Your task to perform on an android device: Search for hotels in Las Vegas Image 0: 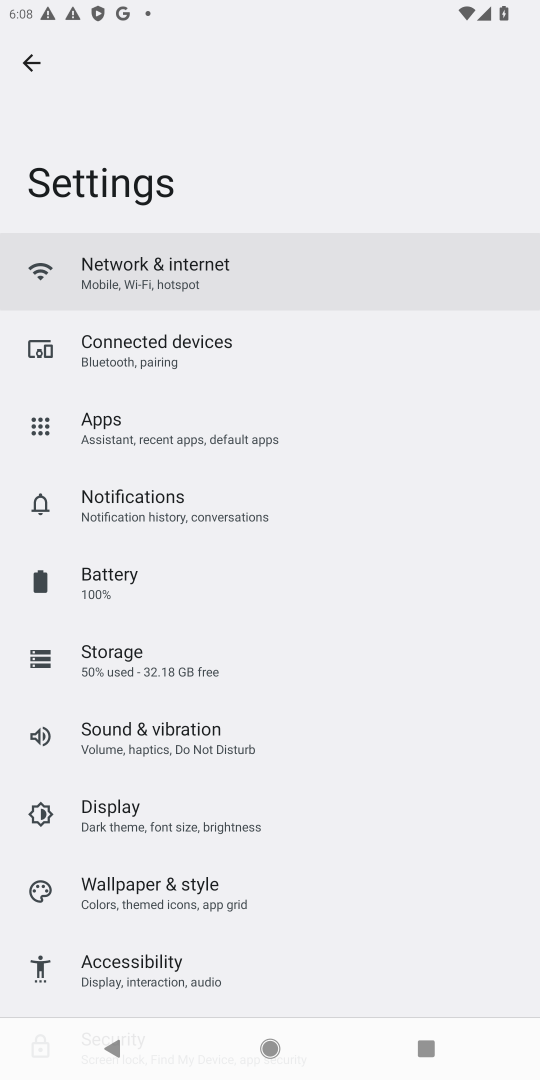
Step 0: press home button
Your task to perform on an android device: Search for hotels in Las Vegas Image 1: 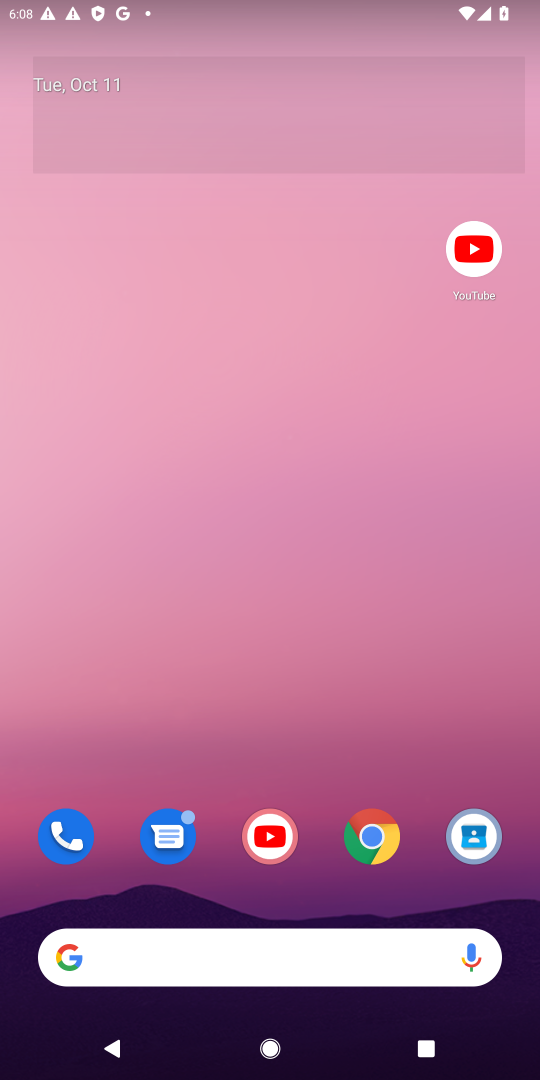
Step 1: click (361, 838)
Your task to perform on an android device: Search for hotels in Las Vegas Image 2: 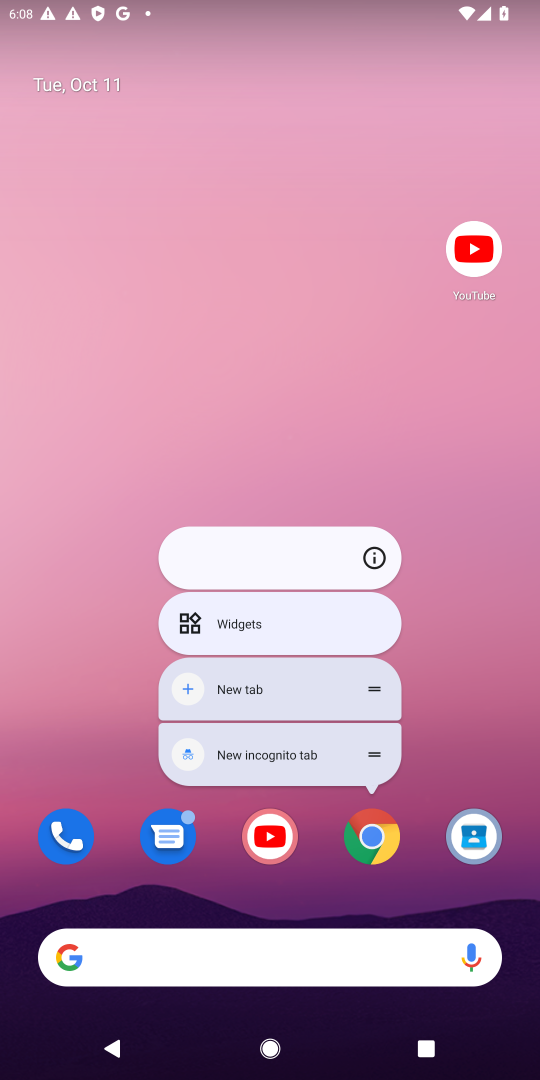
Step 2: click (375, 834)
Your task to perform on an android device: Search for hotels in Las Vegas Image 3: 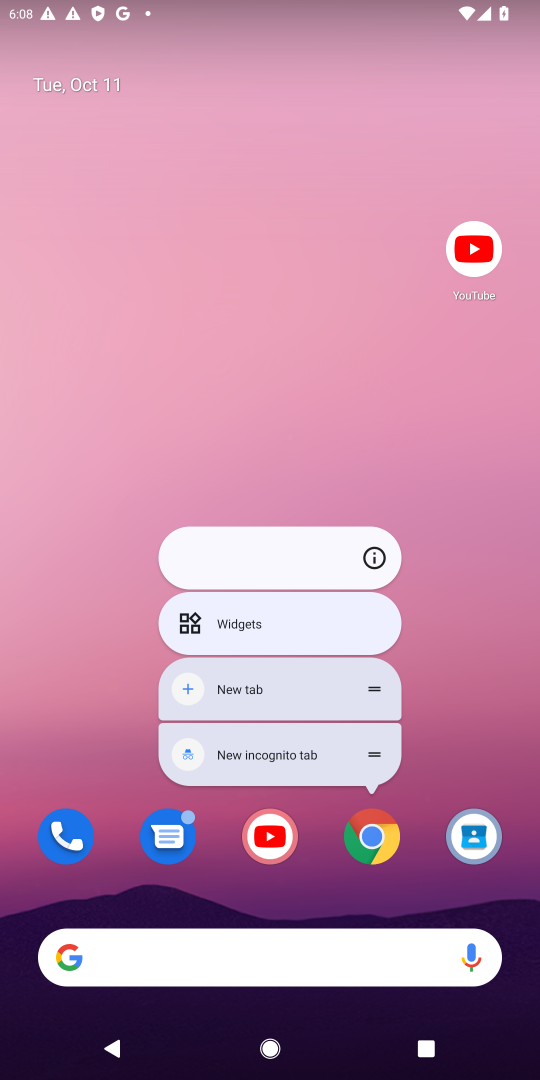
Step 3: click (375, 834)
Your task to perform on an android device: Search for hotels in Las Vegas Image 4: 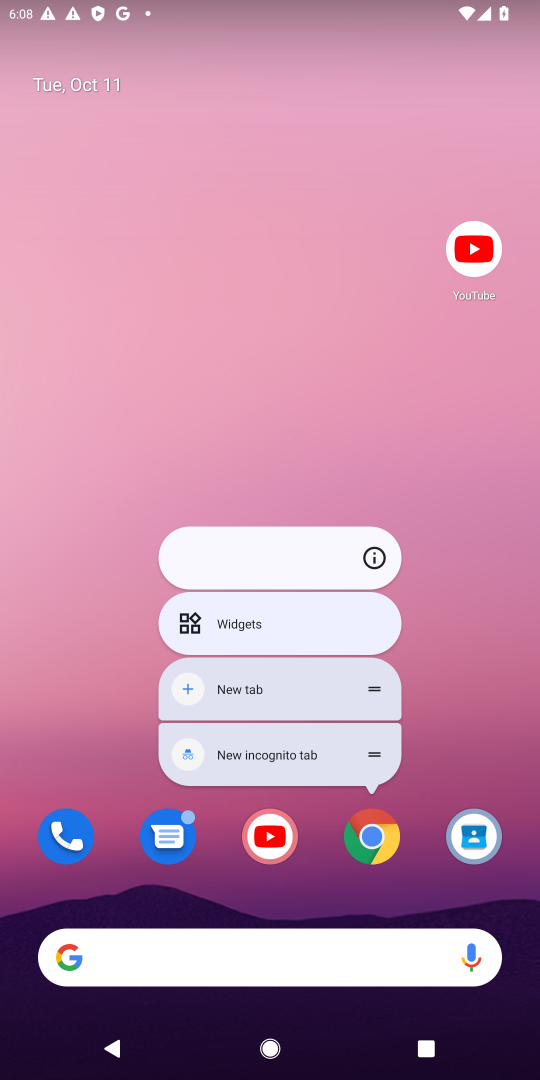
Step 4: click (372, 846)
Your task to perform on an android device: Search for hotels in Las Vegas Image 5: 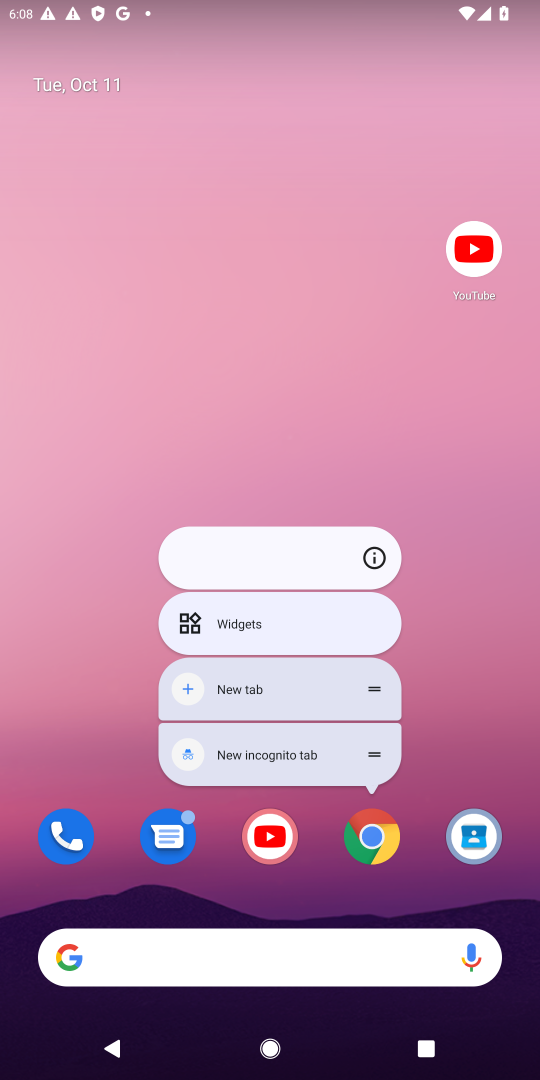
Step 5: click (372, 840)
Your task to perform on an android device: Search for hotels in Las Vegas Image 6: 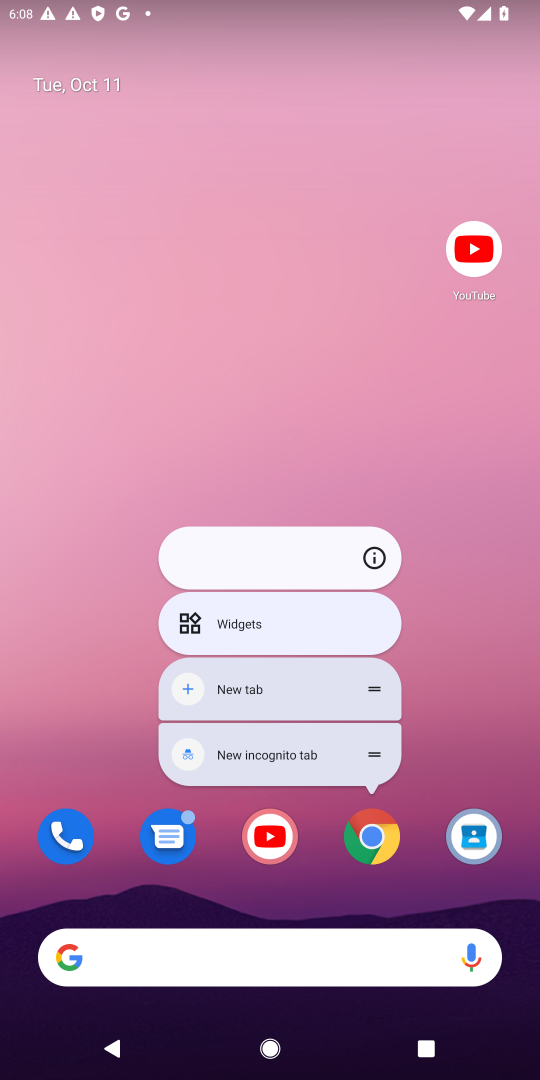
Step 6: click (369, 841)
Your task to perform on an android device: Search for hotels in Las Vegas Image 7: 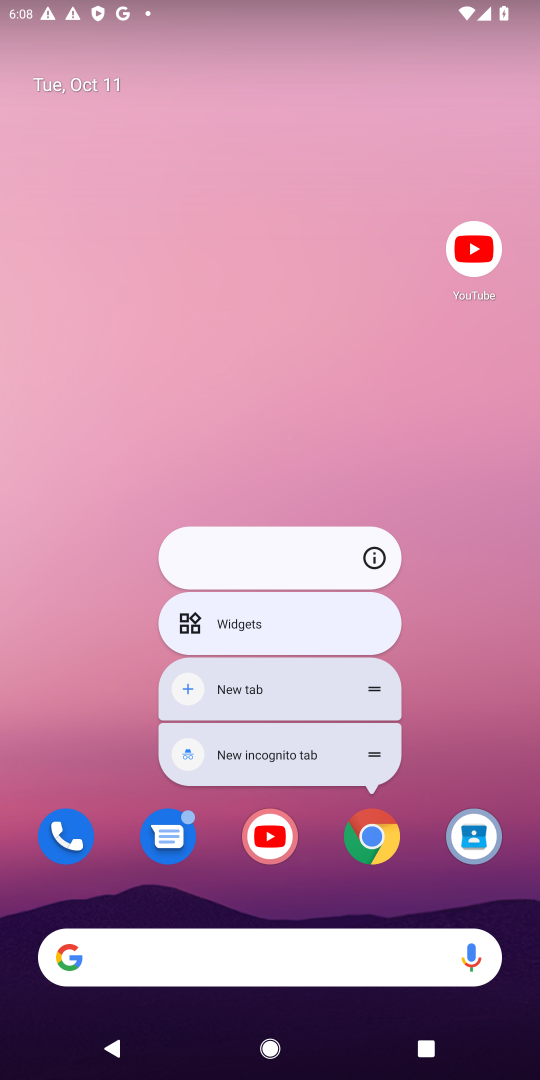
Step 7: click (369, 841)
Your task to perform on an android device: Search for hotels in Las Vegas Image 8: 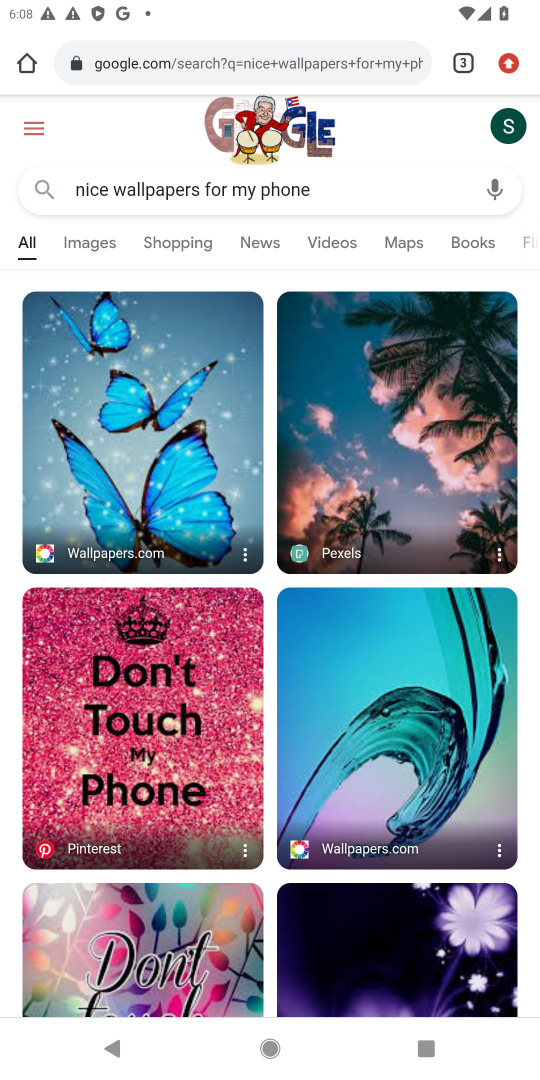
Step 8: click (341, 58)
Your task to perform on an android device: Search for hotels in Las Vegas Image 9: 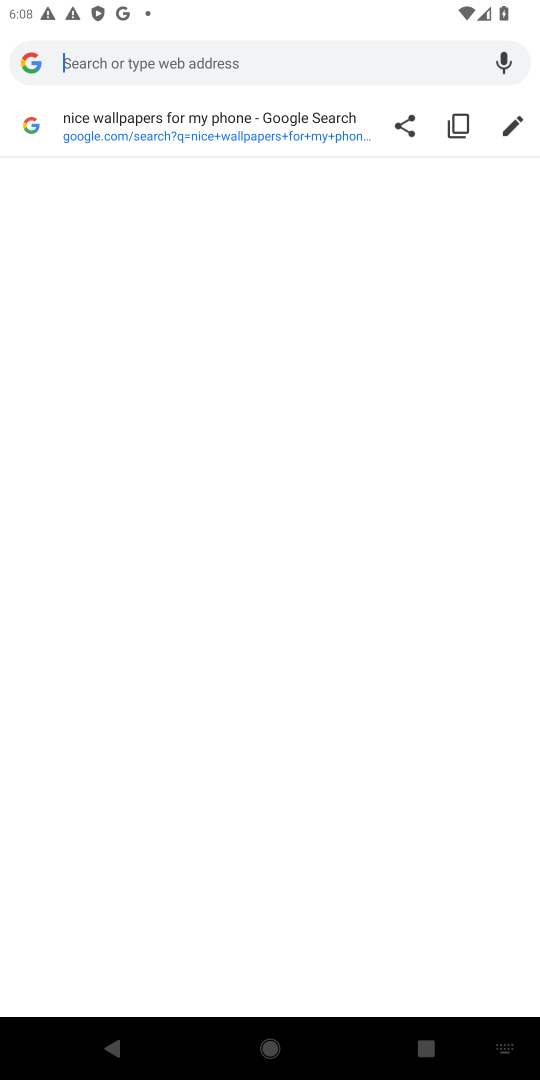
Step 9: type "hotels in Las Vegas"
Your task to perform on an android device: Search for hotels in Las Vegas Image 10: 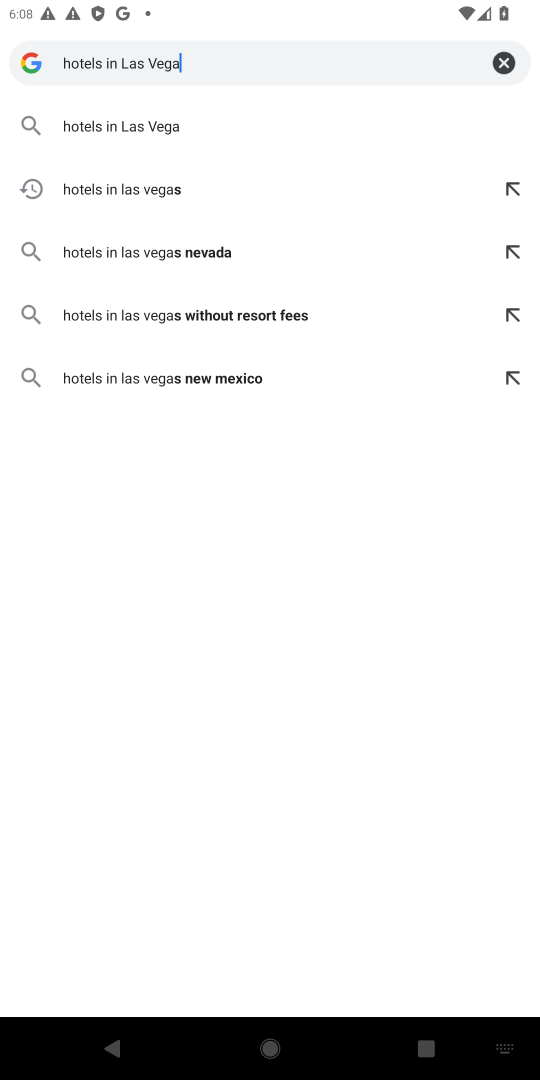
Step 10: press enter
Your task to perform on an android device: Search for hotels in Las Vegas Image 11: 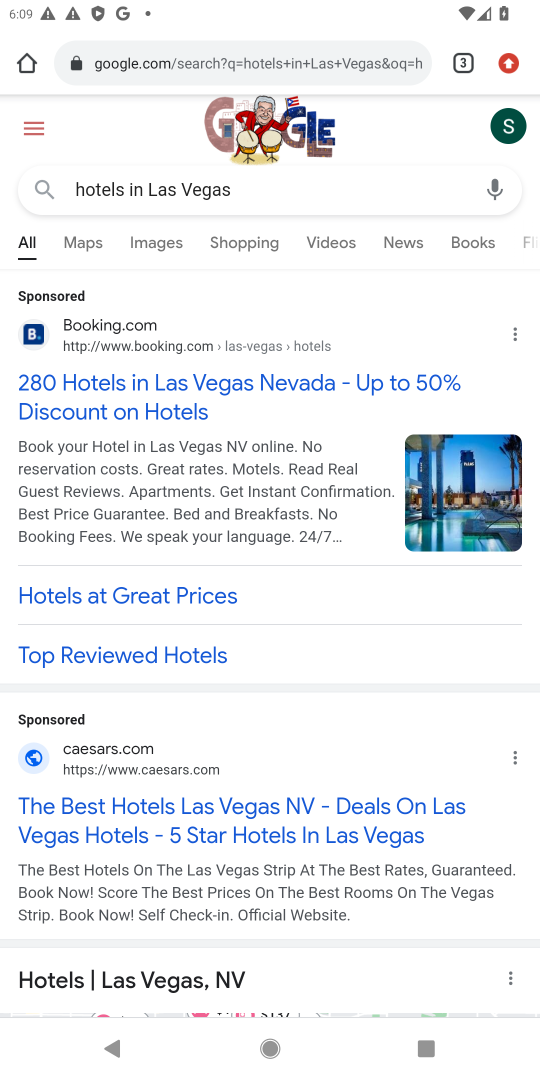
Step 11: drag from (159, 855) to (445, 292)
Your task to perform on an android device: Search for hotels in Las Vegas Image 12: 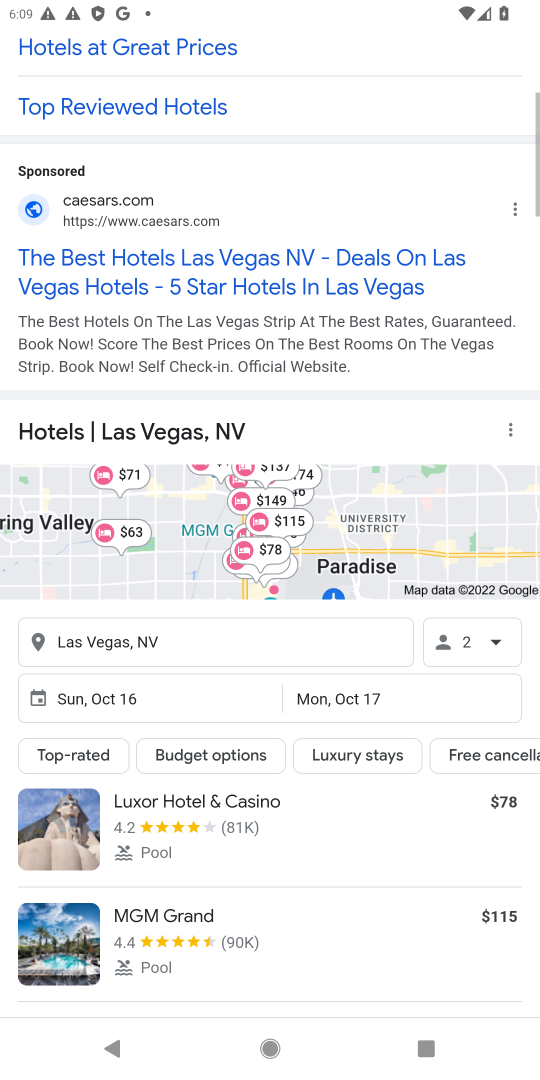
Step 12: drag from (187, 862) to (429, 536)
Your task to perform on an android device: Search for hotels in Las Vegas Image 13: 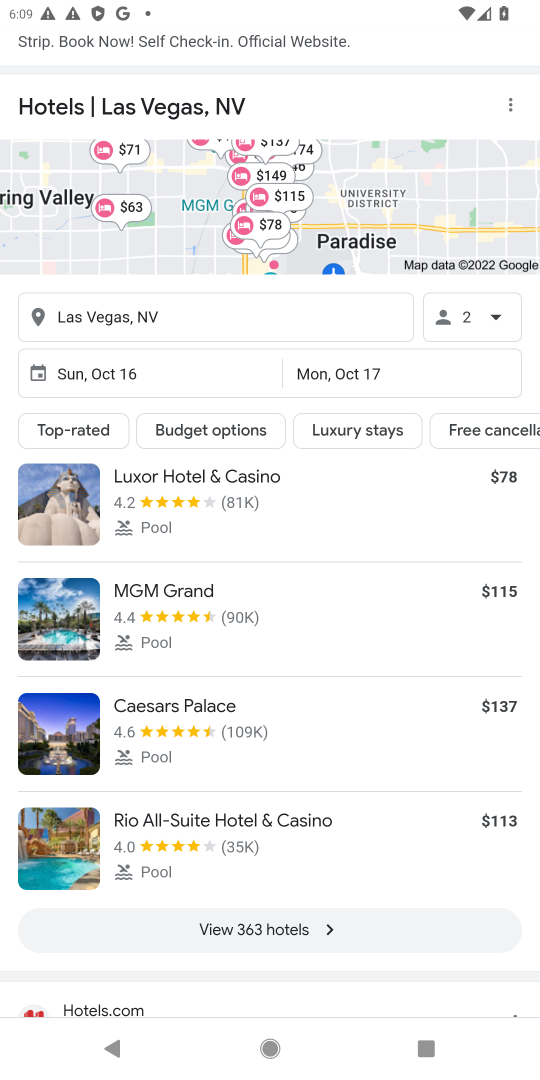
Step 13: click (228, 927)
Your task to perform on an android device: Search for hotels in Las Vegas Image 14: 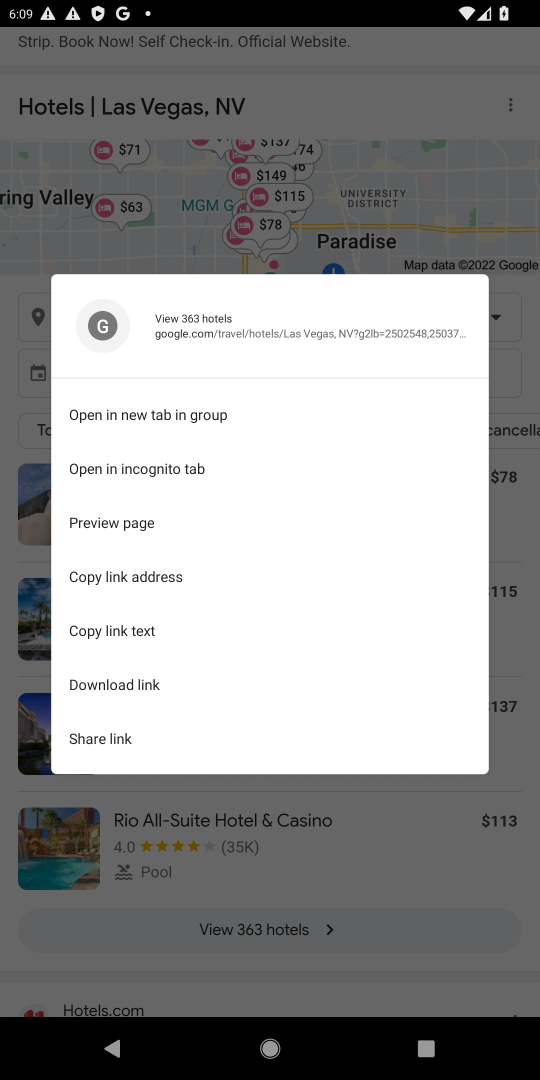
Step 14: click (219, 934)
Your task to perform on an android device: Search for hotels in Las Vegas Image 15: 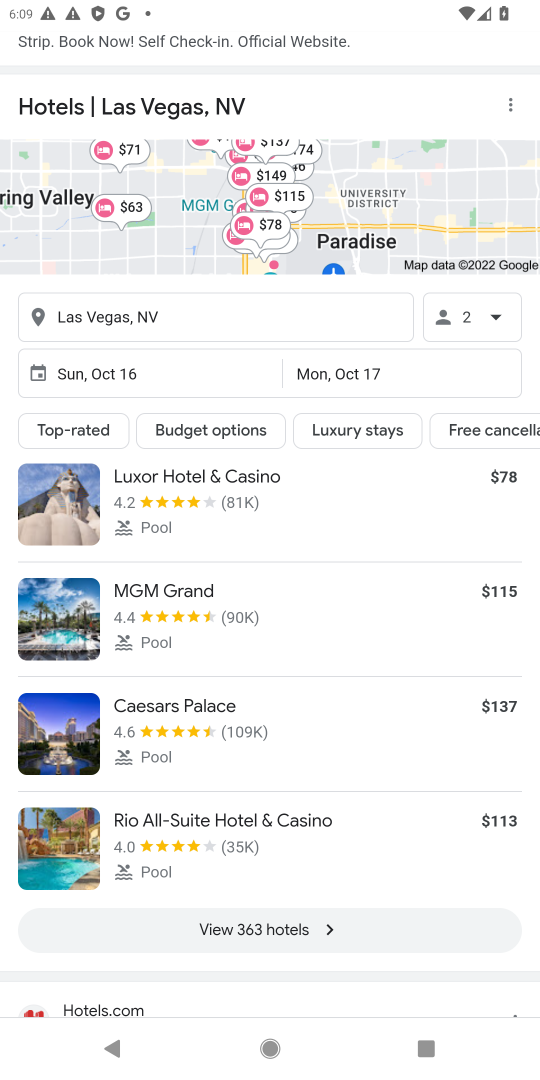
Step 15: click (222, 936)
Your task to perform on an android device: Search for hotels in Las Vegas Image 16: 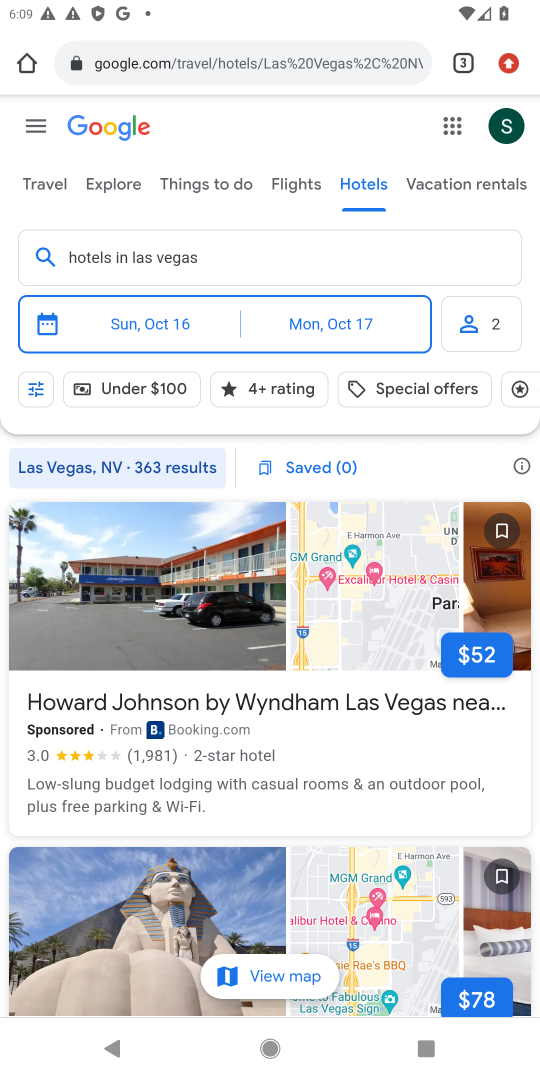
Step 16: task complete